Your task to perform on an android device: open device folders in google photos Image 0: 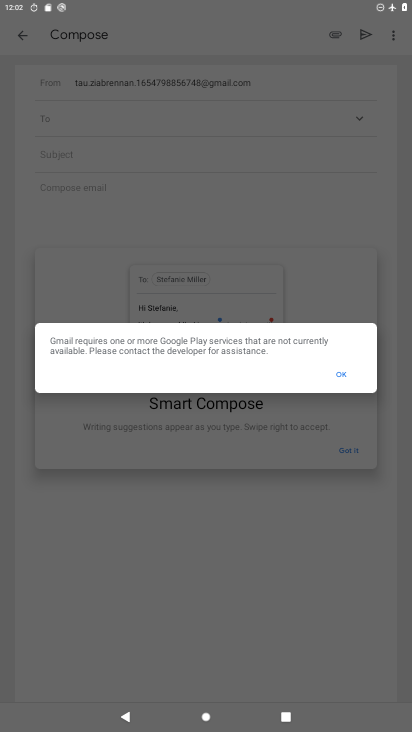
Step 0: press home button
Your task to perform on an android device: open device folders in google photos Image 1: 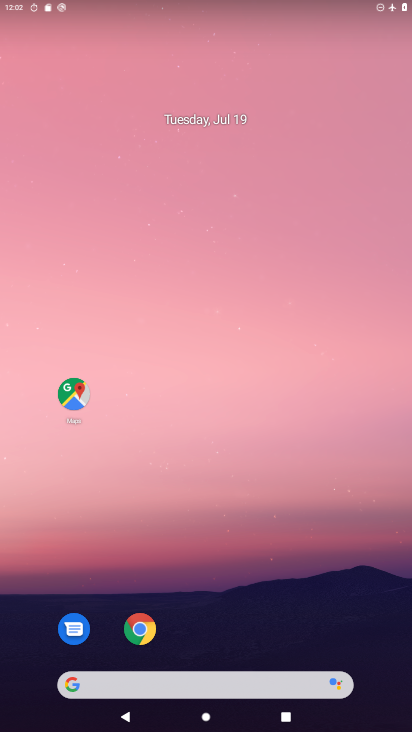
Step 1: drag from (329, 637) to (283, 137)
Your task to perform on an android device: open device folders in google photos Image 2: 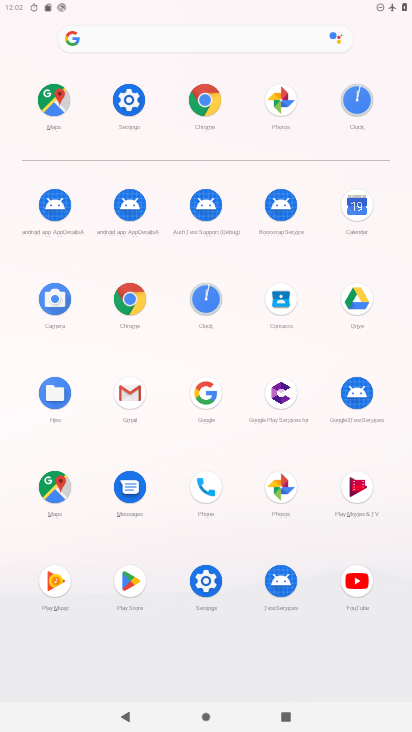
Step 2: click (289, 501)
Your task to perform on an android device: open device folders in google photos Image 3: 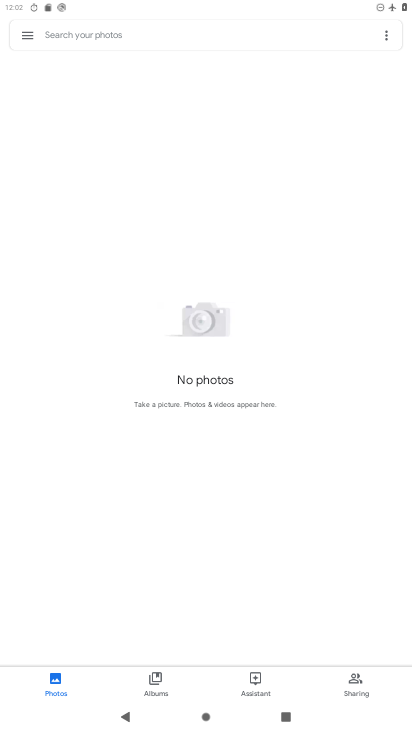
Step 3: click (34, 33)
Your task to perform on an android device: open device folders in google photos Image 4: 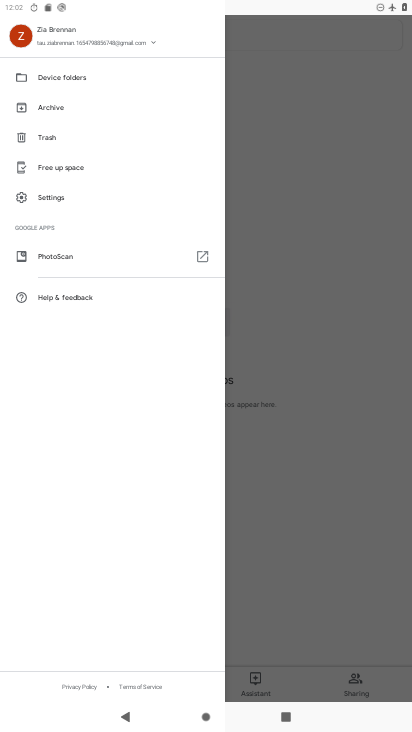
Step 4: click (62, 79)
Your task to perform on an android device: open device folders in google photos Image 5: 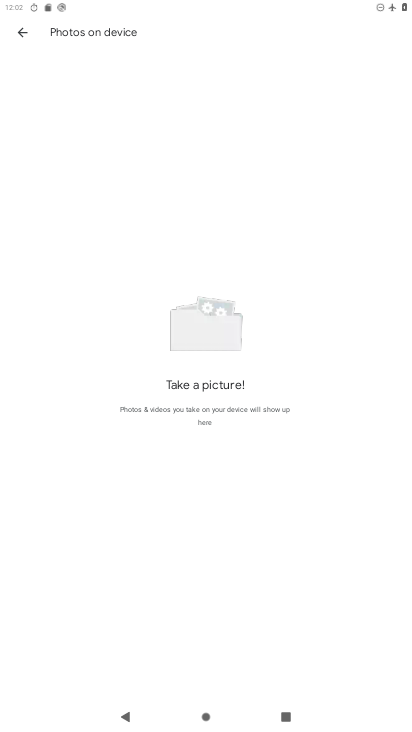
Step 5: task complete